Your task to perform on an android device: Go to eBay Image 0: 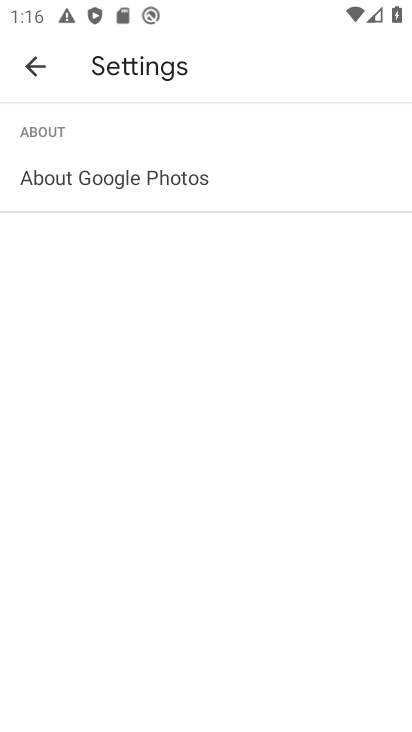
Step 0: press home button
Your task to perform on an android device: Go to eBay Image 1: 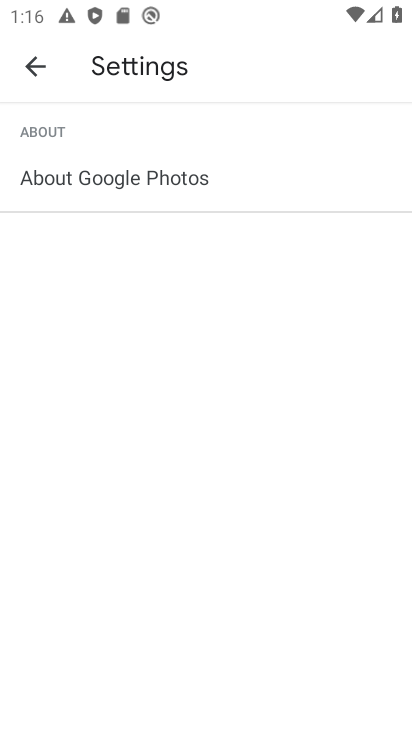
Step 1: press home button
Your task to perform on an android device: Go to eBay Image 2: 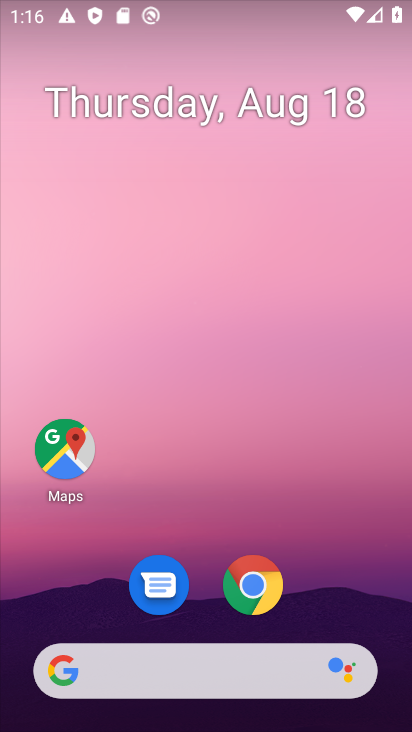
Step 2: click (193, 672)
Your task to perform on an android device: Go to eBay Image 3: 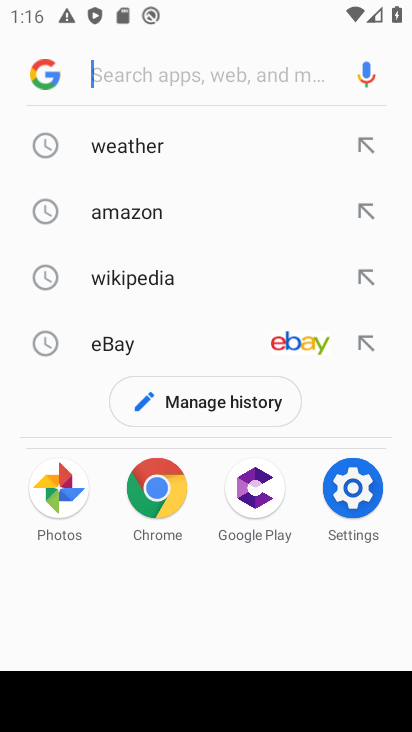
Step 3: click (212, 347)
Your task to perform on an android device: Go to eBay Image 4: 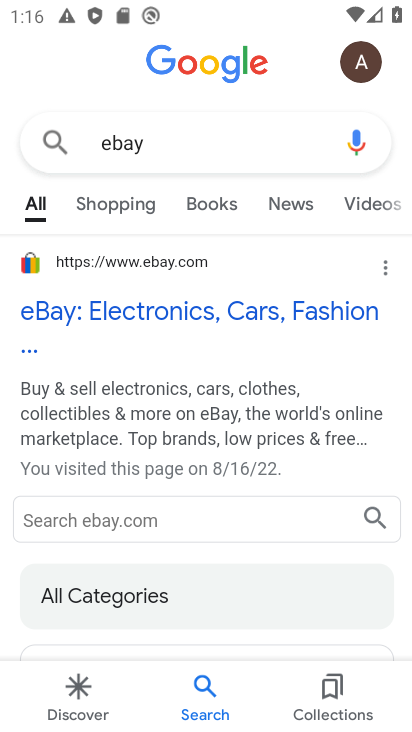
Step 4: click (113, 314)
Your task to perform on an android device: Go to eBay Image 5: 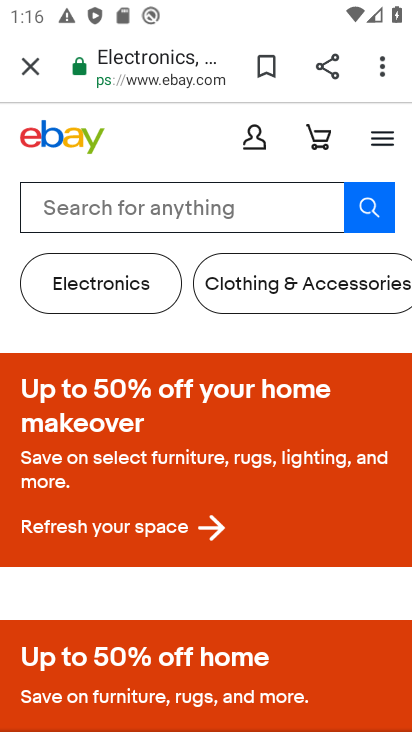
Step 5: task complete